Your task to perform on an android device: Open ESPN.com Image 0: 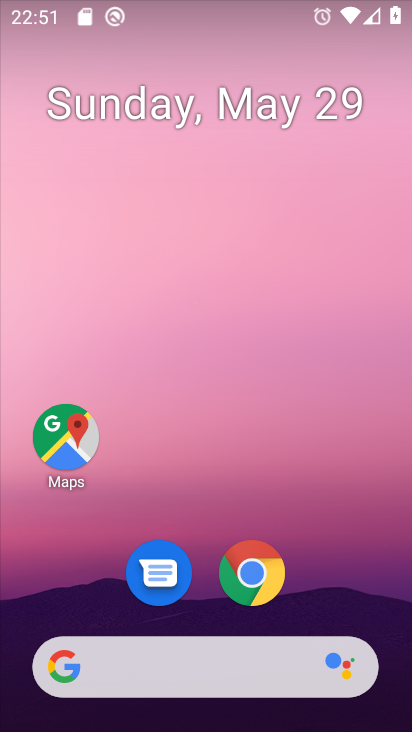
Step 0: click (285, 666)
Your task to perform on an android device: Open ESPN.com Image 1: 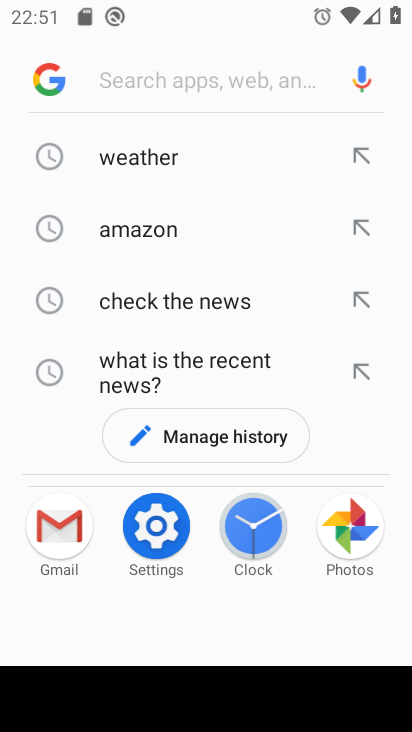
Step 1: type "espn.com"
Your task to perform on an android device: Open ESPN.com Image 2: 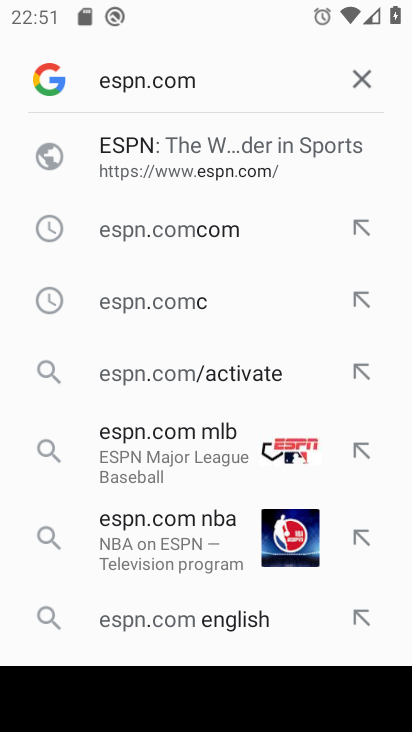
Step 2: click (179, 164)
Your task to perform on an android device: Open ESPN.com Image 3: 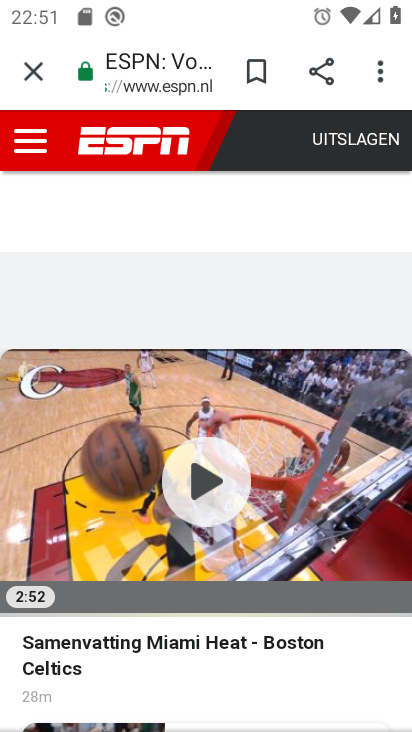
Step 3: task complete